Your task to perform on an android device: see sites visited before in the chrome app Image 0: 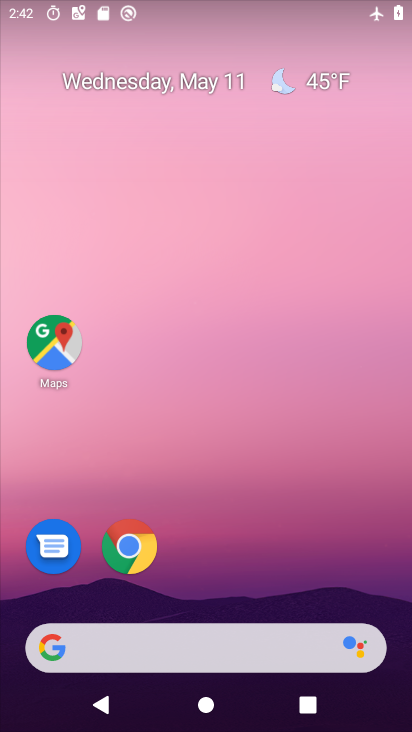
Step 0: click (128, 550)
Your task to perform on an android device: see sites visited before in the chrome app Image 1: 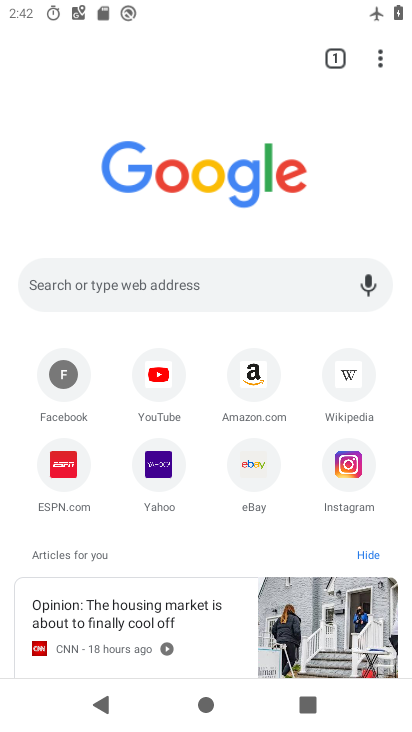
Step 1: click (379, 68)
Your task to perform on an android device: see sites visited before in the chrome app Image 2: 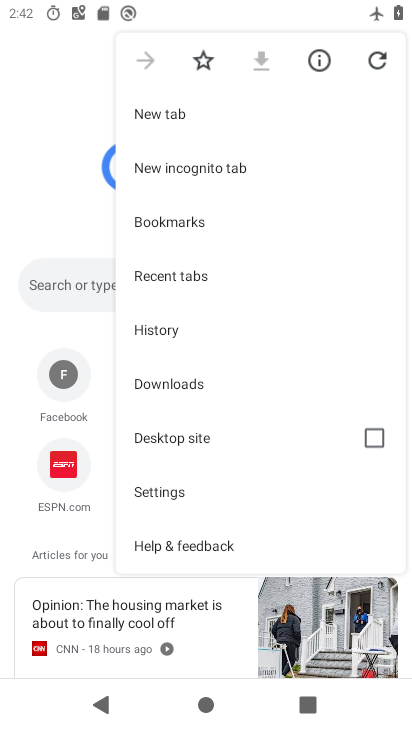
Step 2: click (183, 272)
Your task to perform on an android device: see sites visited before in the chrome app Image 3: 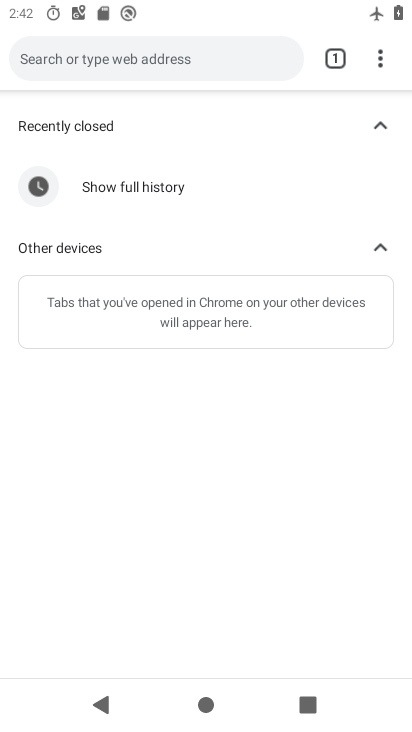
Step 3: task complete